Your task to perform on an android device: change your default location settings in chrome Image 0: 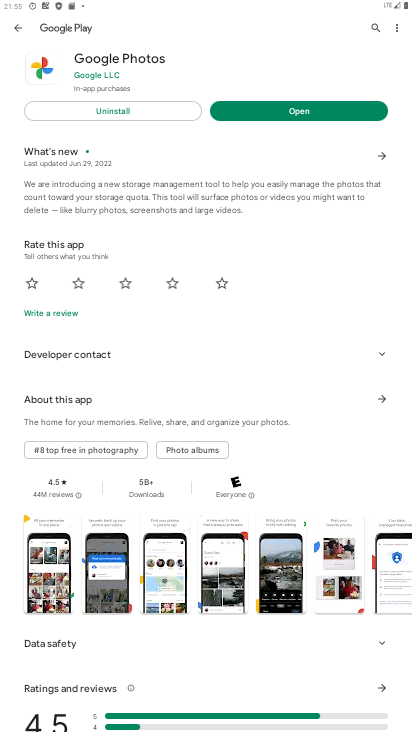
Step 0: drag from (209, 638) to (266, 333)
Your task to perform on an android device: change your default location settings in chrome Image 1: 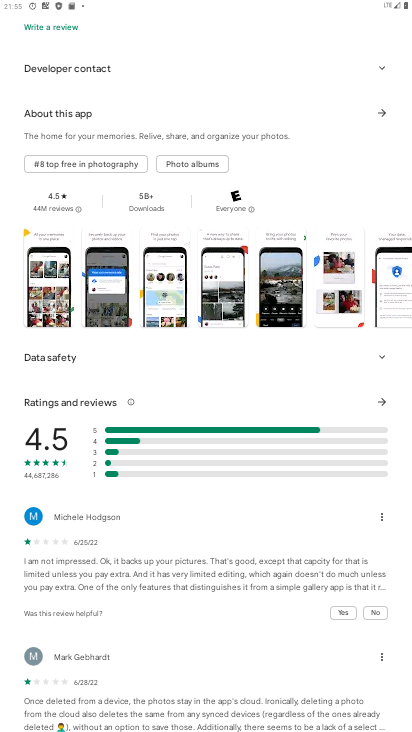
Step 1: drag from (163, 662) to (308, 285)
Your task to perform on an android device: change your default location settings in chrome Image 2: 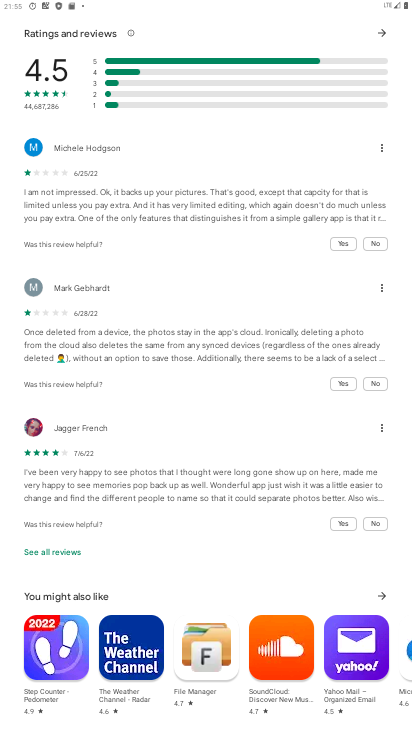
Step 2: drag from (199, 520) to (250, 293)
Your task to perform on an android device: change your default location settings in chrome Image 3: 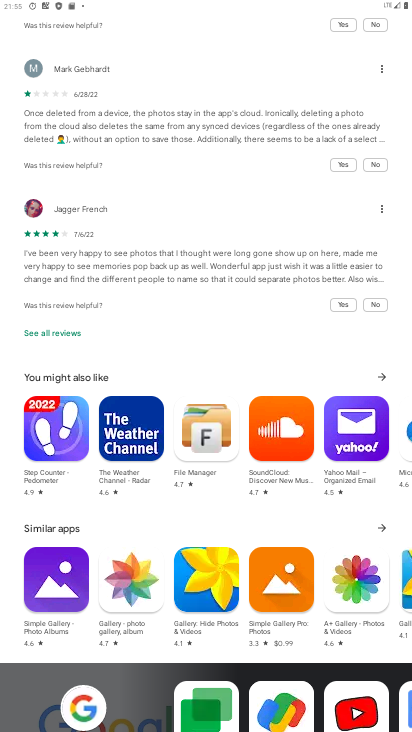
Step 3: drag from (175, 488) to (217, 238)
Your task to perform on an android device: change your default location settings in chrome Image 4: 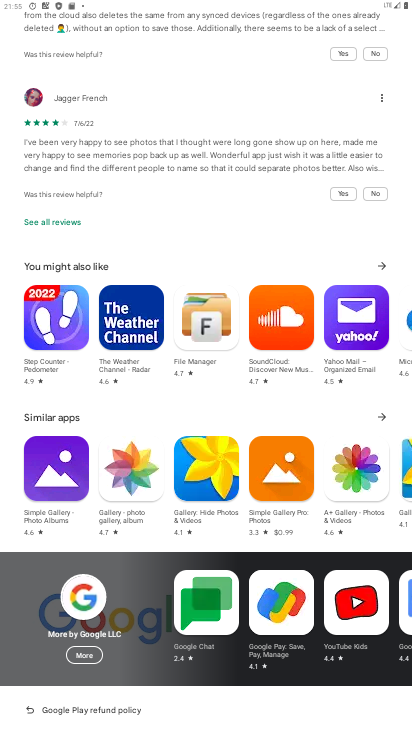
Step 4: drag from (217, 176) to (267, 543)
Your task to perform on an android device: change your default location settings in chrome Image 5: 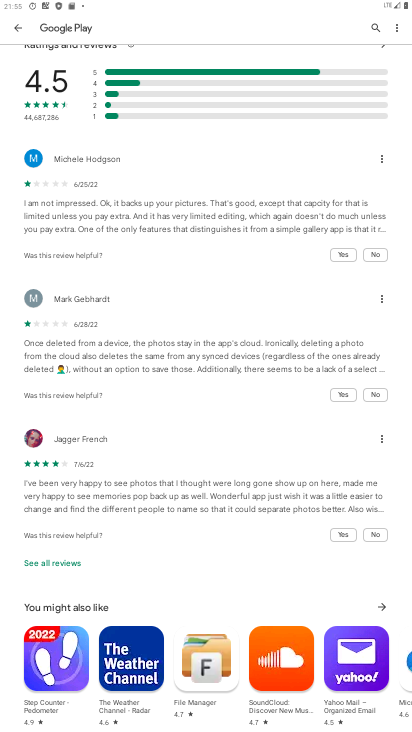
Step 5: drag from (217, 239) to (224, 663)
Your task to perform on an android device: change your default location settings in chrome Image 6: 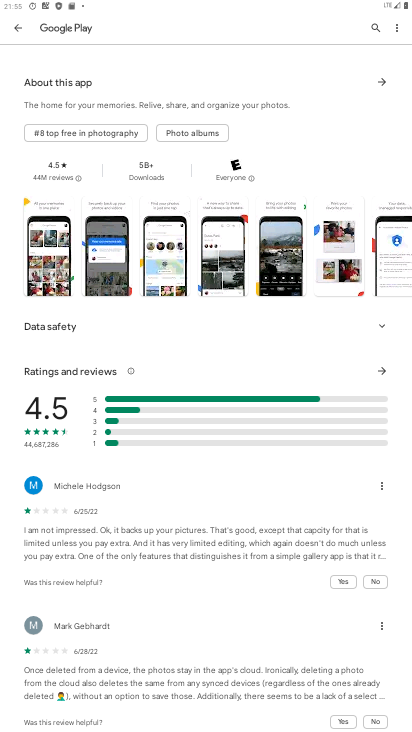
Step 6: drag from (248, 98) to (264, 577)
Your task to perform on an android device: change your default location settings in chrome Image 7: 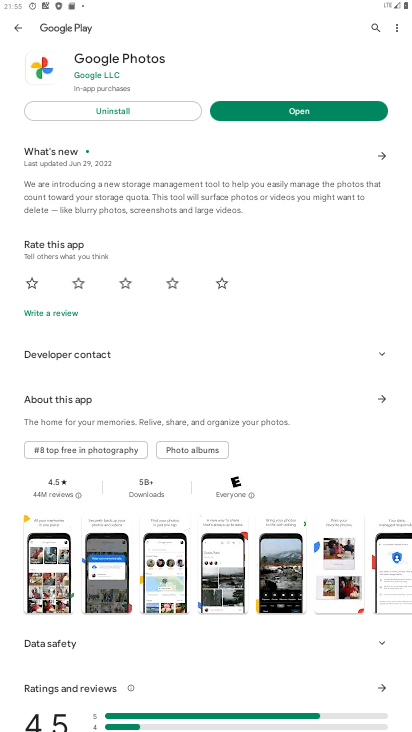
Step 7: drag from (162, 203) to (229, 626)
Your task to perform on an android device: change your default location settings in chrome Image 8: 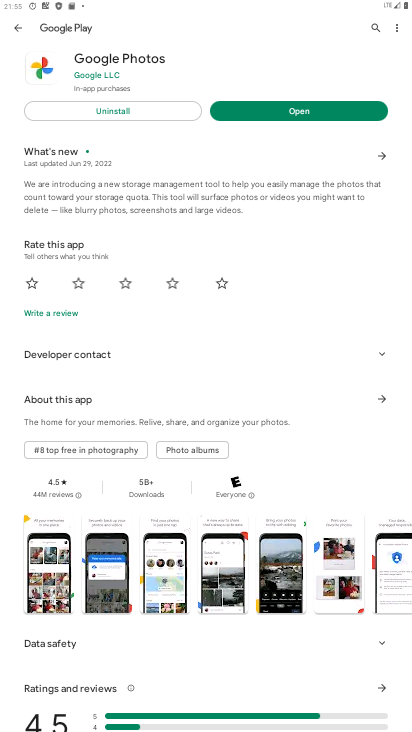
Step 8: drag from (182, 222) to (299, 726)
Your task to perform on an android device: change your default location settings in chrome Image 9: 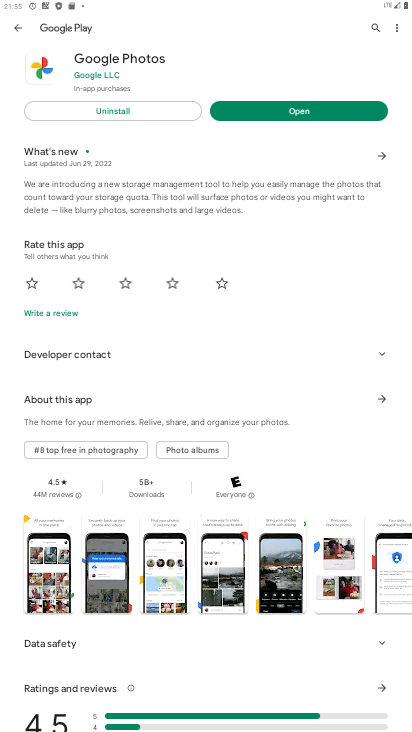
Step 9: press home button
Your task to perform on an android device: change your default location settings in chrome Image 10: 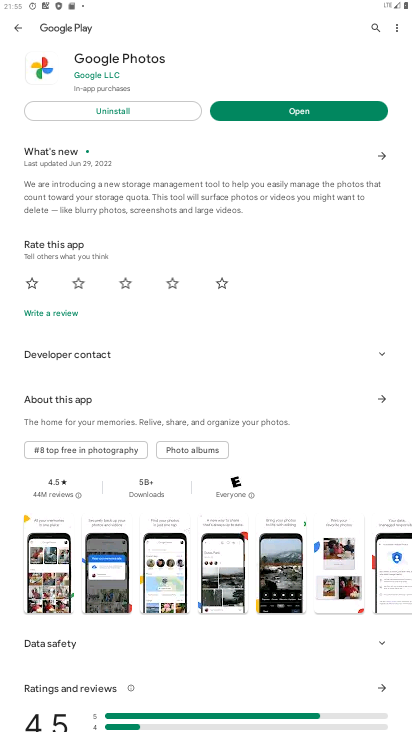
Step 10: press home button
Your task to perform on an android device: change your default location settings in chrome Image 11: 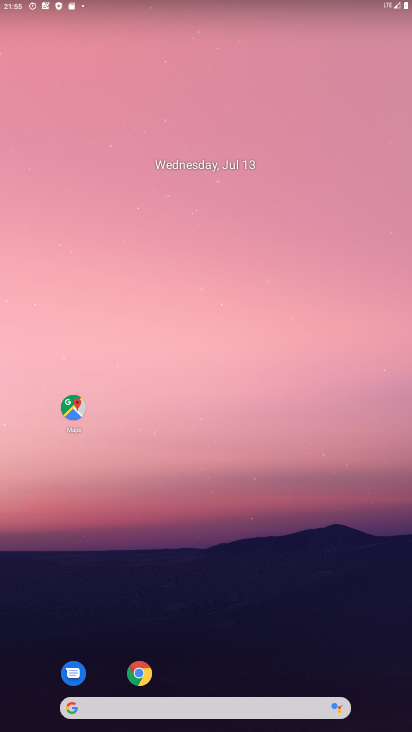
Step 11: drag from (175, 672) to (262, 12)
Your task to perform on an android device: change your default location settings in chrome Image 12: 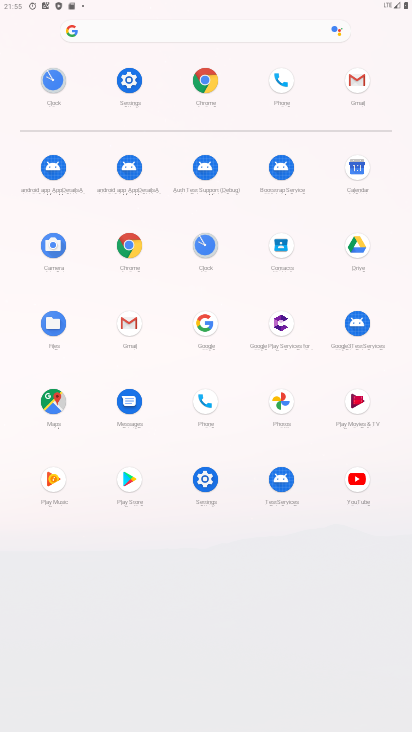
Step 12: click (130, 249)
Your task to perform on an android device: change your default location settings in chrome Image 13: 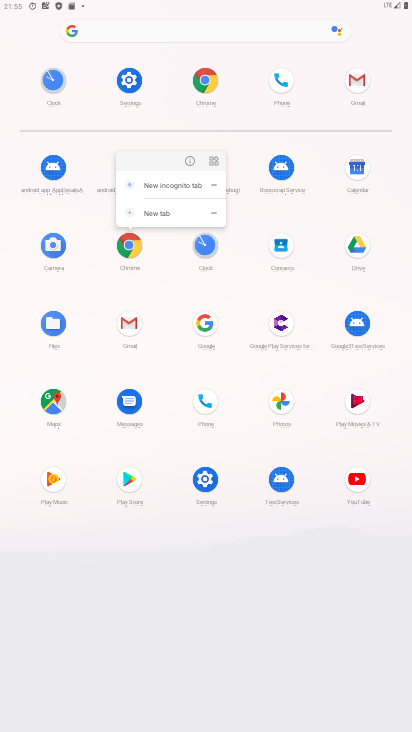
Step 13: click (192, 163)
Your task to perform on an android device: change your default location settings in chrome Image 14: 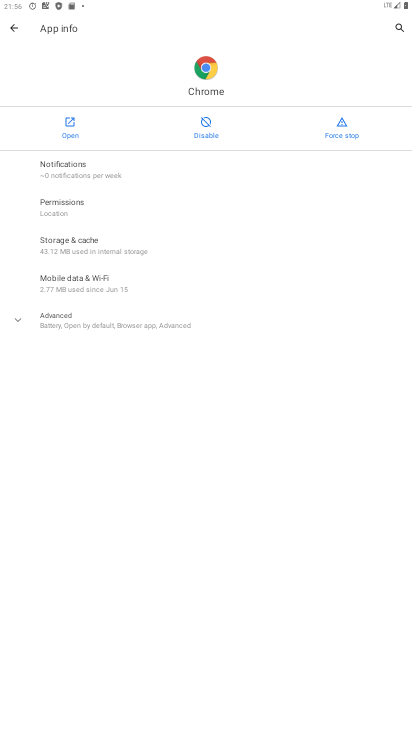
Step 14: click (71, 132)
Your task to perform on an android device: change your default location settings in chrome Image 15: 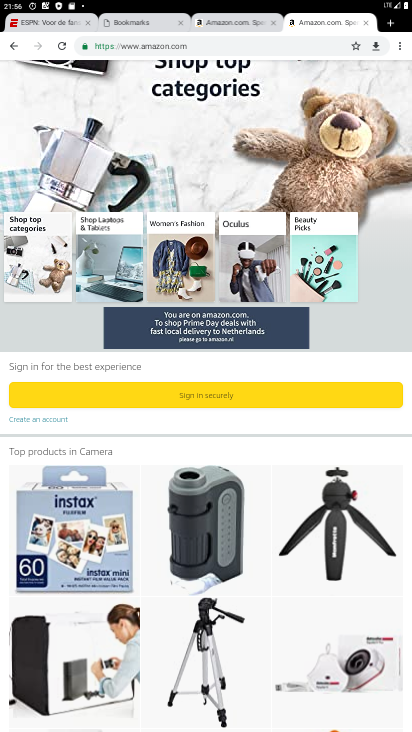
Step 15: drag from (403, 47) to (308, 303)
Your task to perform on an android device: change your default location settings in chrome Image 16: 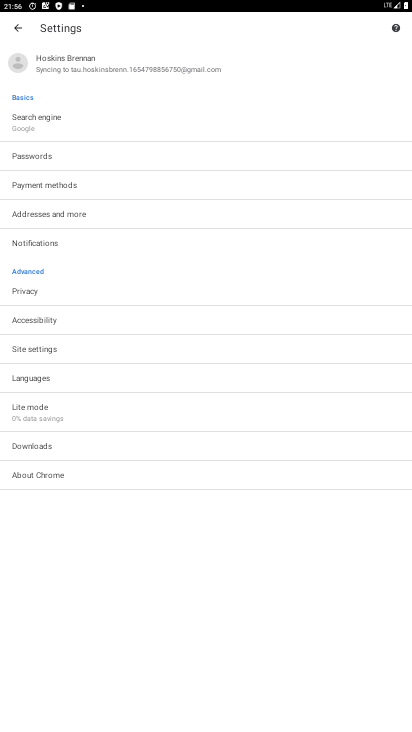
Step 16: click (74, 345)
Your task to perform on an android device: change your default location settings in chrome Image 17: 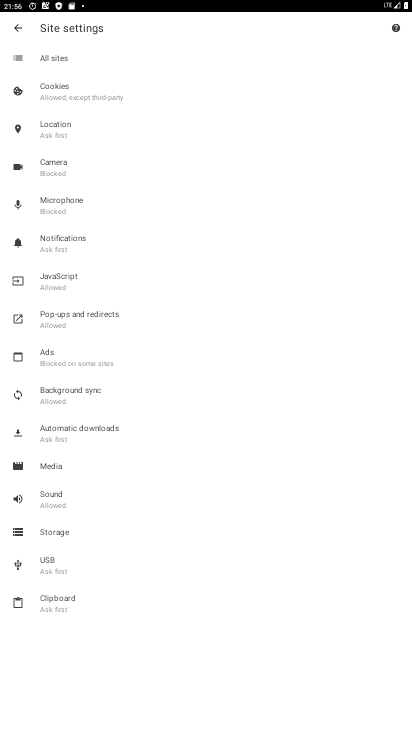
Step 17: drag from (155, 535) to (182, 271)
Your task to perform on an android device: change your default location settings in chrome Image 18: 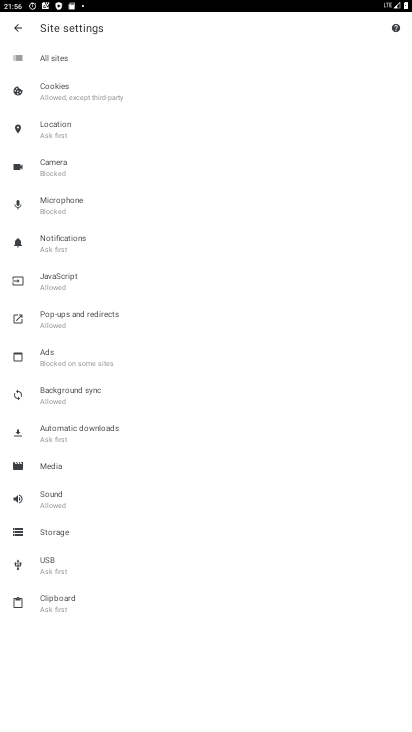
Step 18: drag from (90, 580) to (160, 335)
Your task to perform on an android device: change your default location settings in chrome Image 19: 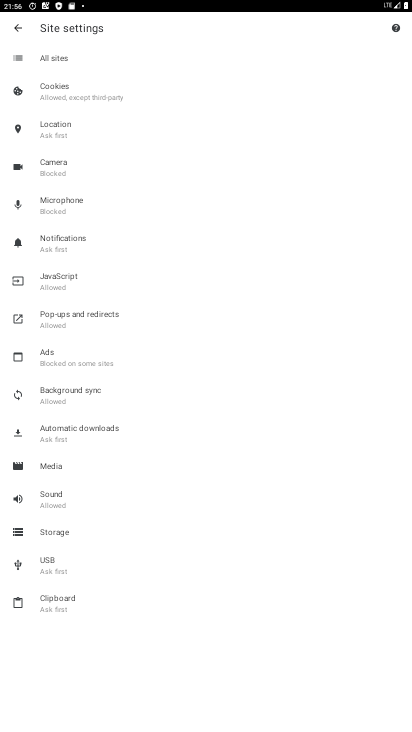
Step 19: click (90, 132)
Your task to perform on an android device: change your default location settings in chrome Image 20: 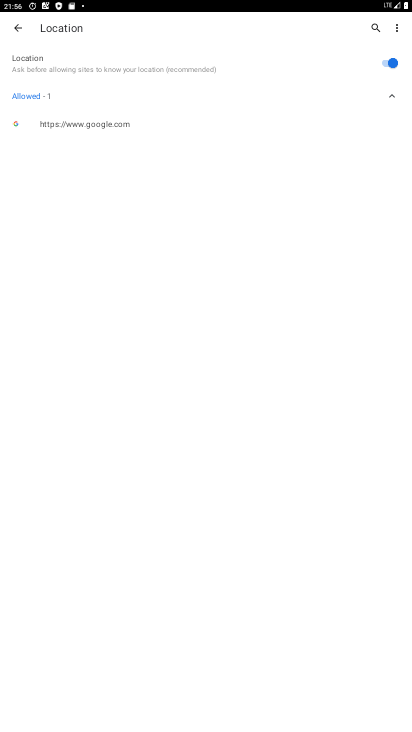
Step 20: click (384, 60)
Your task to perform on an android device: change your default location settings in chrome Image 21: 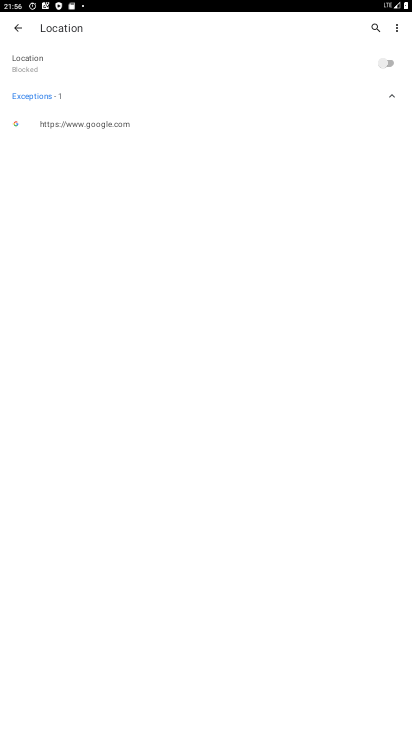
Step 21: task complete